Your task to perform on an android device: Open Chrome and go to settings Image 0: 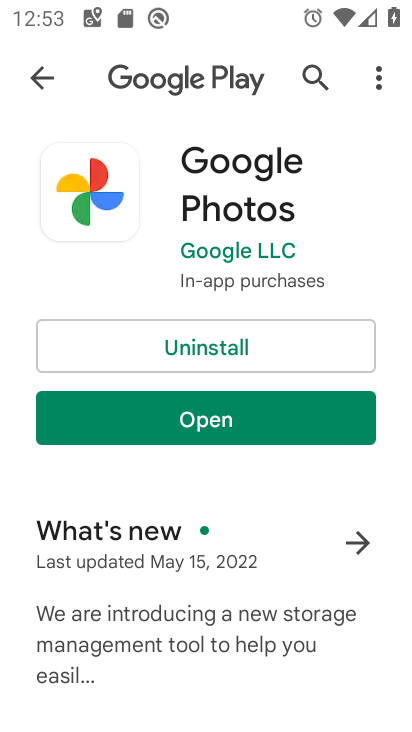
Step 0: press home button
Your task to perform on an android device: Open Chrome and go to settings Image 1: 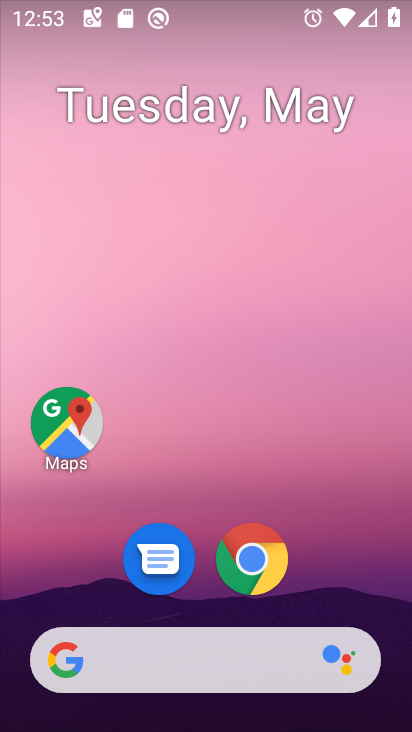
Step 1: click (259, 572)
Your task to perform on an android device: Open Chrome and go to settings Image 2: 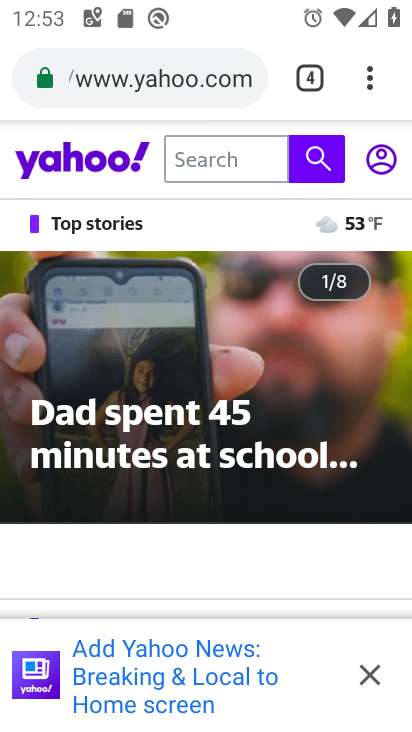
Step 2: click (377, 86)
Your task to perform on an android device: Open Chrome and go to settings Image 3: 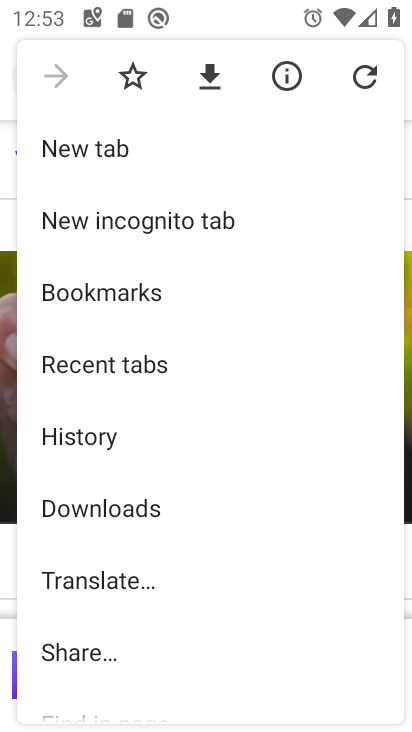
Step 3: drag from (216, 626) to (188, 161)
Your task to perform on an android device: Open Chrome and go to settings Image 4: 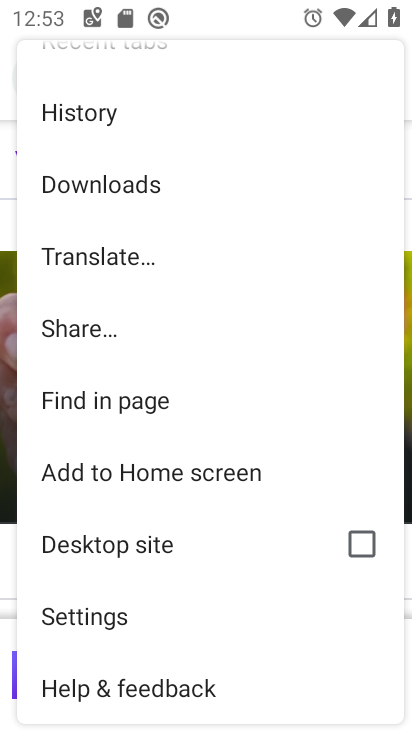
Step 4: click (157, 620)
Your task to perform on an android device: Open Chrome and go to settings Image 5: 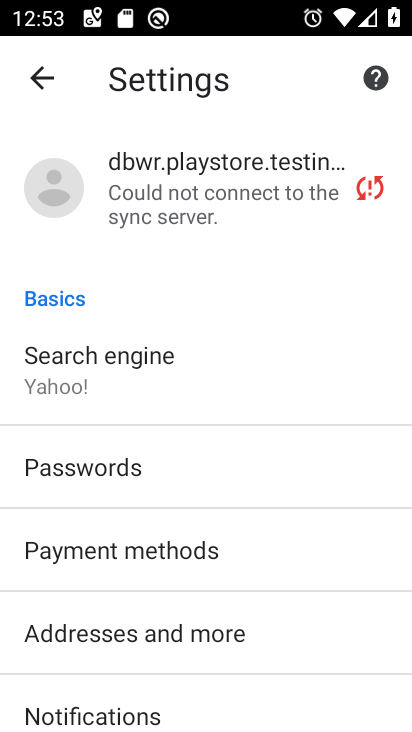
Step 5: task complete